Your task to perform on an android device: toggle data saver in the chrome app Image 0: 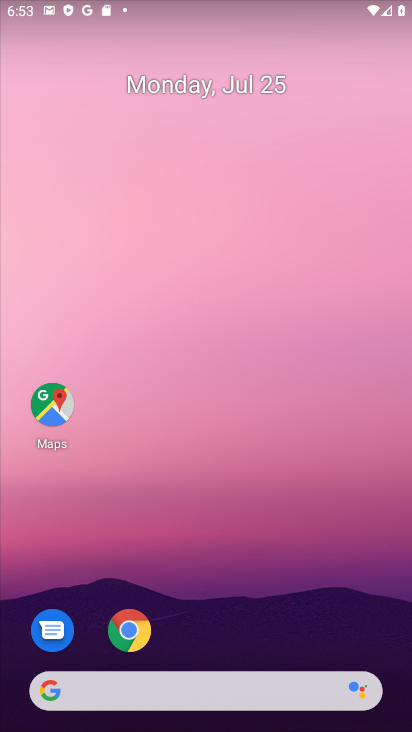
Step 0: click (136, 630)
Your task to perform on an android device: toggle data saver in the chrome app Image 1: 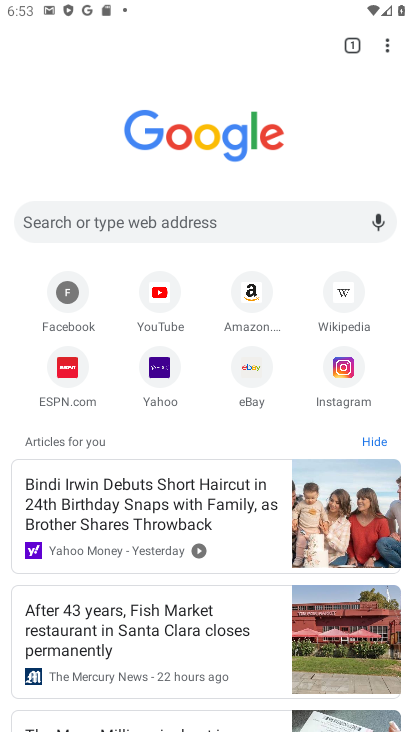
Step 1: click (391, 57)
Your task to perform on an android device: toggle data saver in the chrome app Image 2: 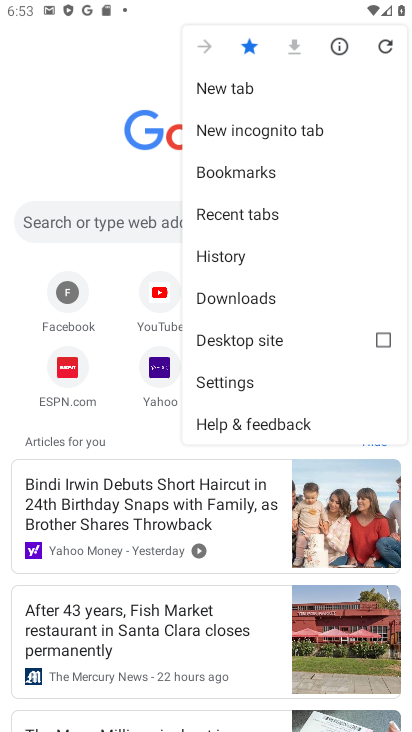
Step 2: click (238, 379)
Your task to perform on an android device: toggle data saver in the chrome app Image 3: 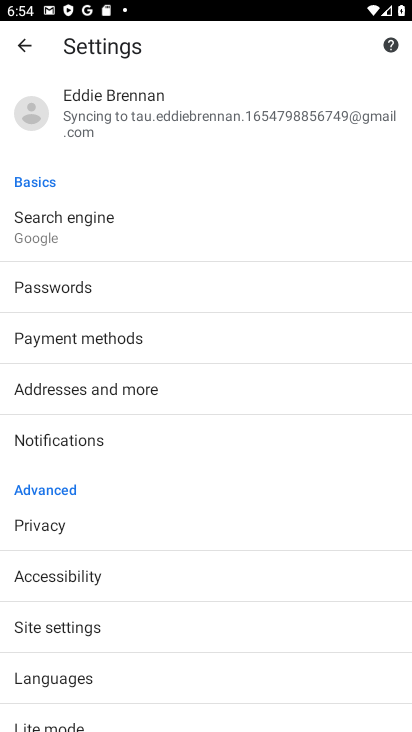
Step 3: click (67, 725)
Your task to perform on an android device: toggle data saver in the chrome app Image 4: 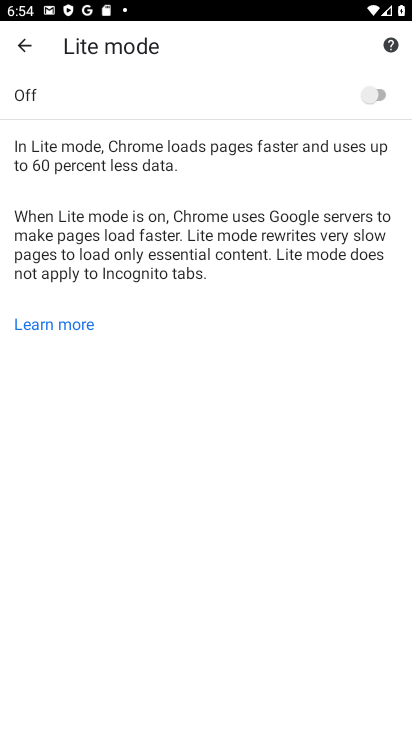
Step 4: task complete